Your task to perform on an android device: Open display settings Image 0: 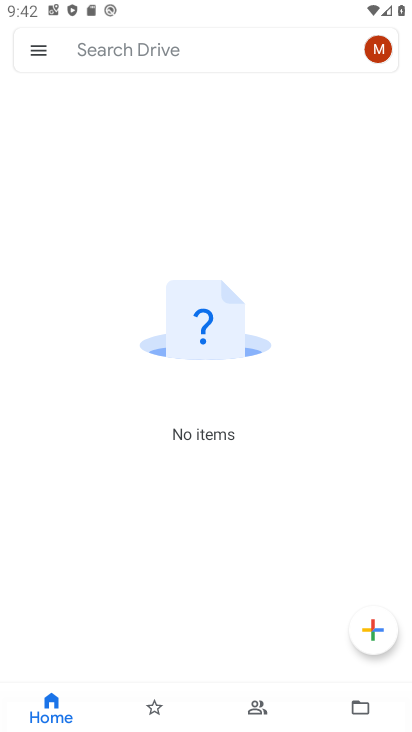
Step 0: press home button
Your task to perform on an android device: Open display settings Image 1: 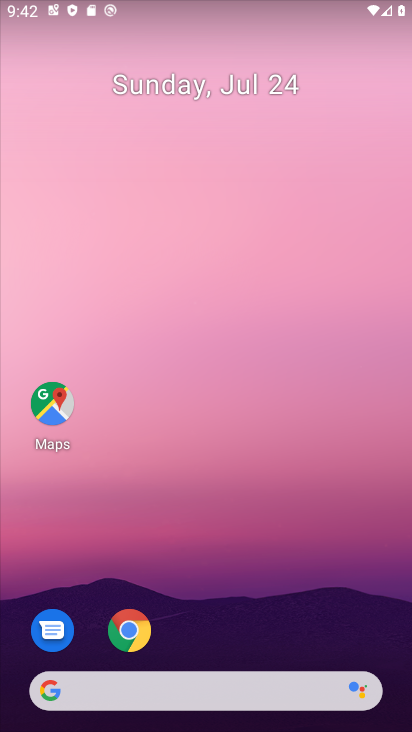
Step 1: drag from (216, 637) to (194, 381)
Your task to perform on an android device: Open display settings Image 2: 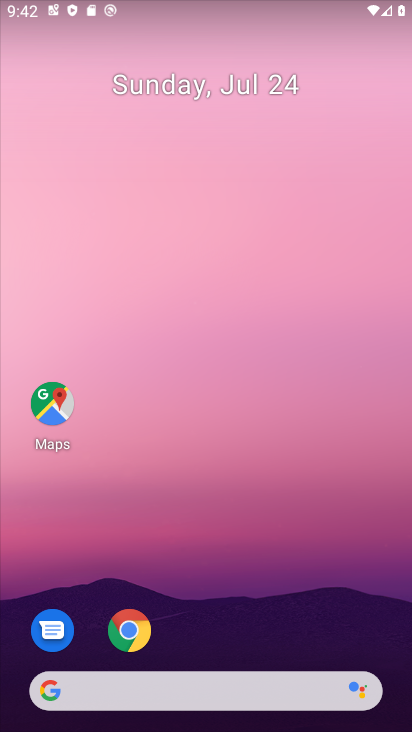
Step 2: drag from (206, 634) to (183, 132)
Your task to perform on an android device: Open display settings Image 3: 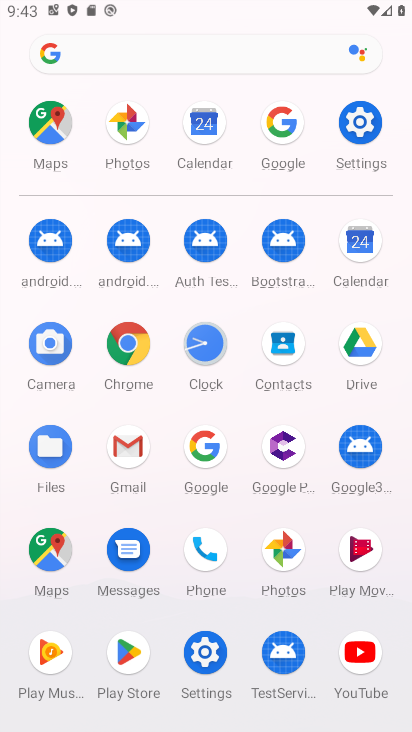
Step 3: click (345, 148)
Your task to perform on an android device: Open display settings Image 4: 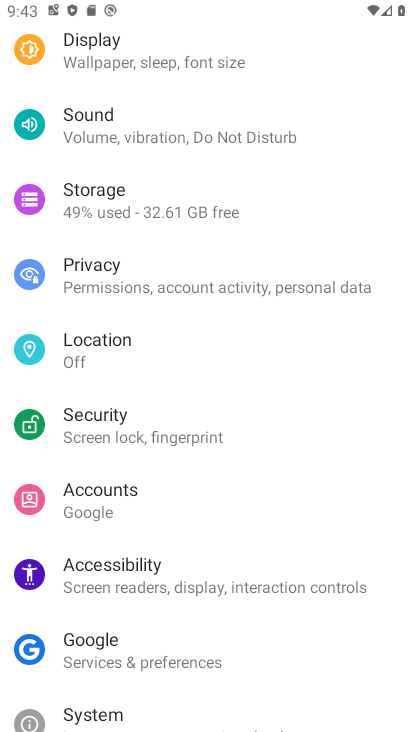
Step 4: click (146, 69)
Your task to perform on an android device: Open display settings Image 5: 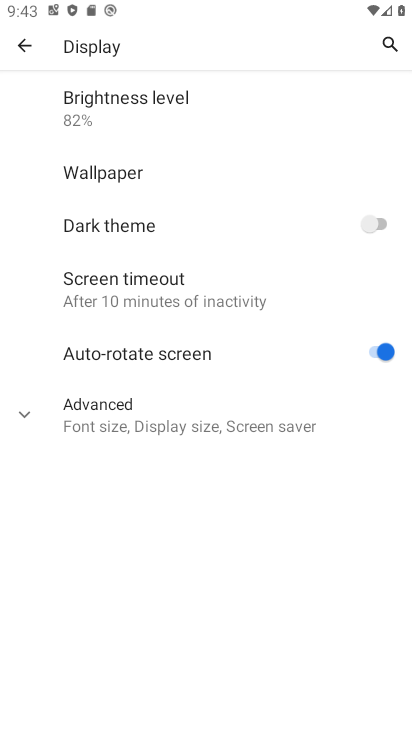
Step 5: task complete